Your task to perform on an android device: move an email to a new category in the gmail app Image 0: 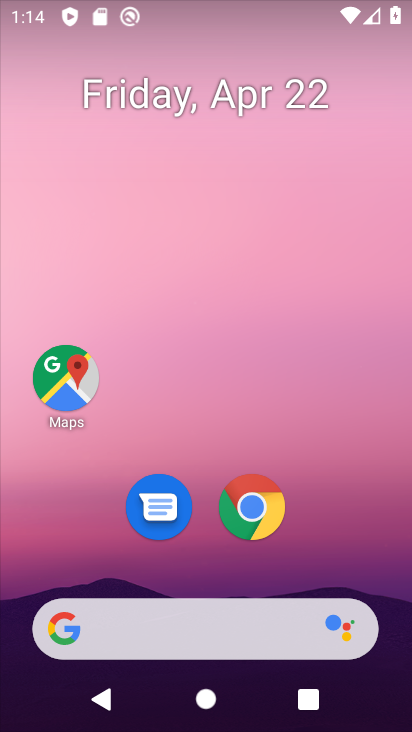
Step 0: drag from (183, 523) to (282, 12)
Your task to perform on an android device: move an email to a new category in the gmail app Image 1: 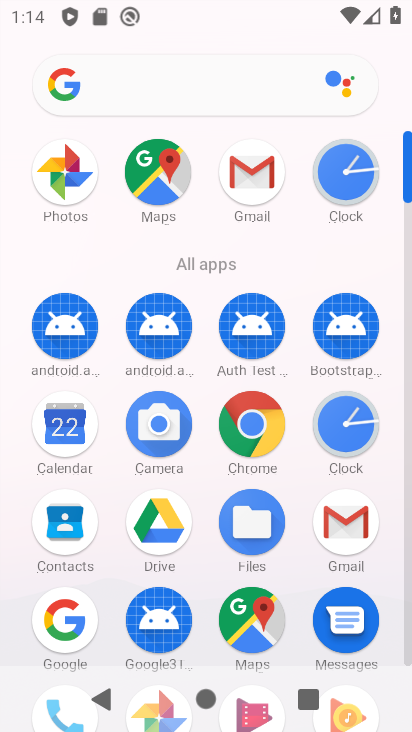
Step 1: click (359, 521)
Your task to perform on an android device: move an email to a new category in the gmail app Image 2: 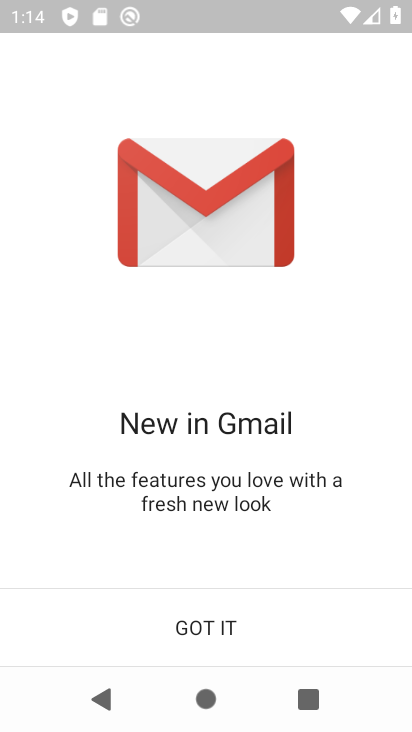
Step 2: click (265, 637)
Your task to perform on an android device: move an email to a new category in the gmail app Image 3: 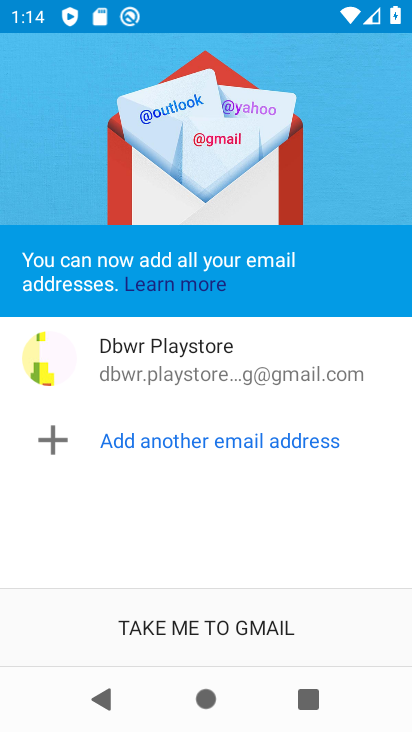
Step 3: click (273, 637)
Your task to perform on an android device: move an email to a new category in the gmail app Image 4: 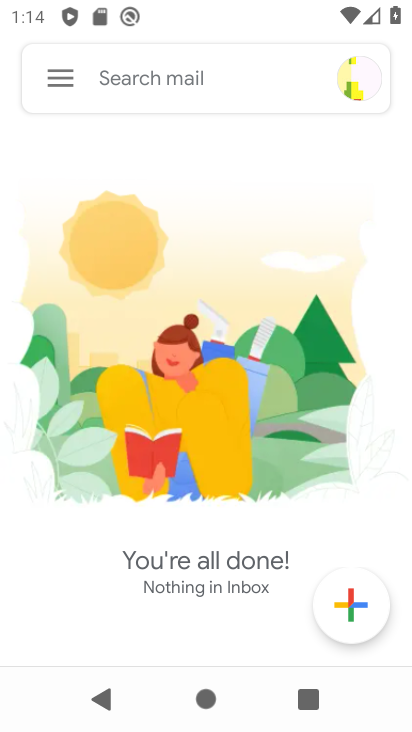
Step 4: click (61, 89)
Your task to perform on an android device: move an email to a new category in the gmail app Image 5: 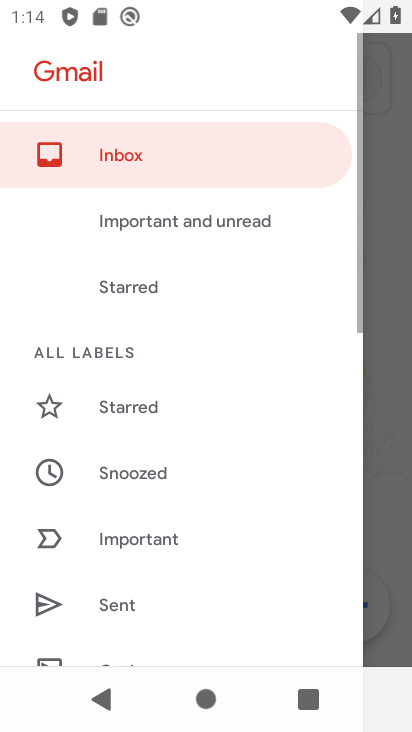
Step 5: drag from (204, 518) to (281, 199)
Your task to perform on an android device: move an email to a new category in the gmail app Image 6: 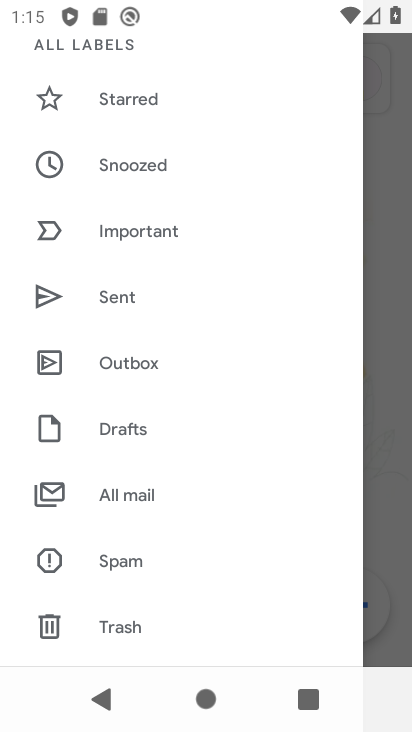
Step 6: click (165, 493)
Your task to perform on an android device: move an email to a new category in the gmail app Image 7: 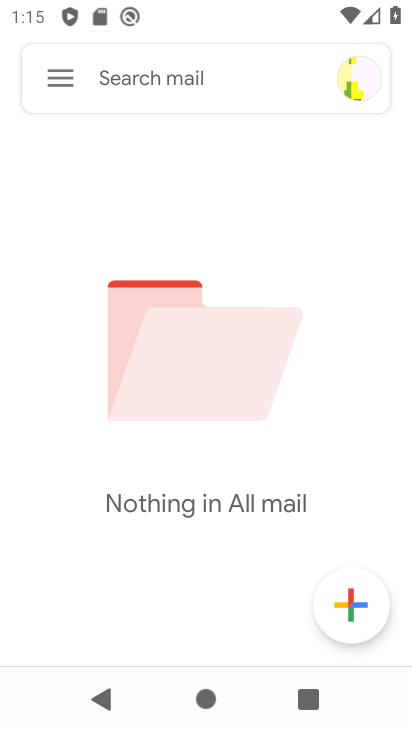
Step 7: task complete